Your task to perform on an android device: Show me popular games on the Play Store Image 0: 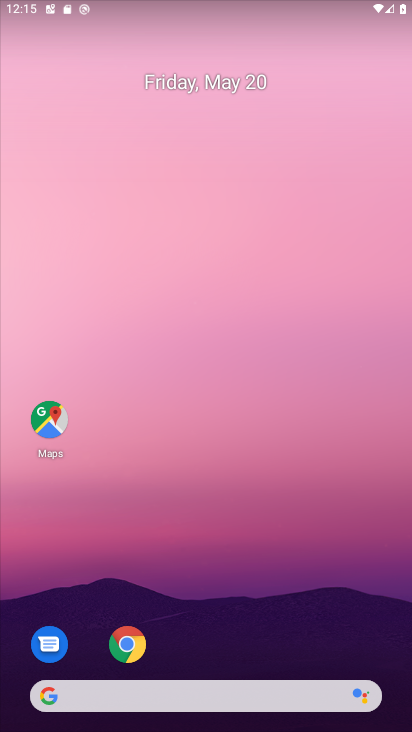
Step 0: drag from (184, 647) to (186, 243)
Your task to perform on an android device: Show me popular games on the Play Store Image 1: 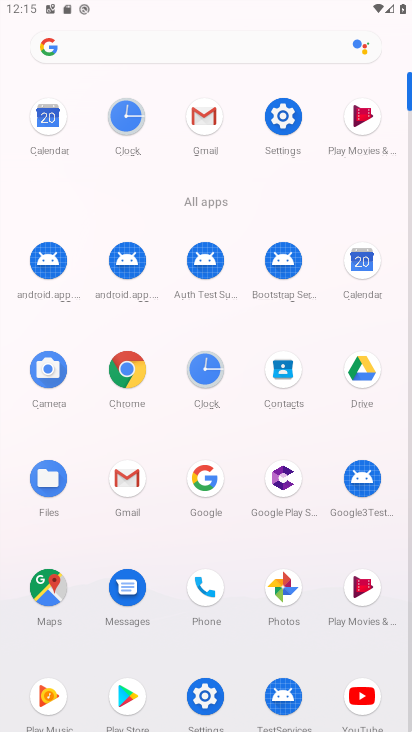
Step 1: click (129, 700)
Your task to perform on an android device: Show me popular games on the Play Store Image 2: 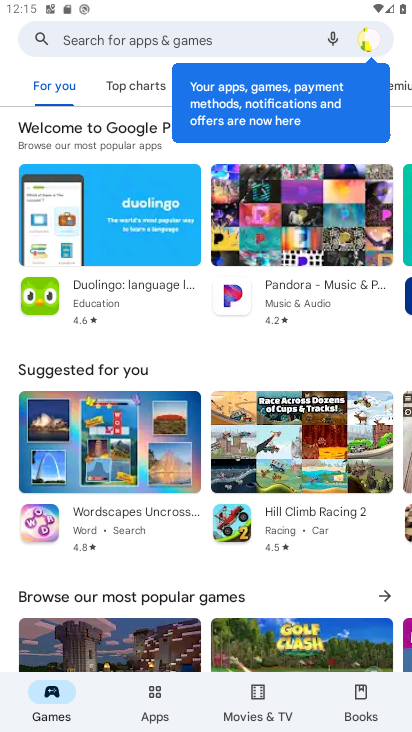
Step 2: click (191, 33)
Your task to perform on an android device: Show me popular games on the Play Store Image 3: 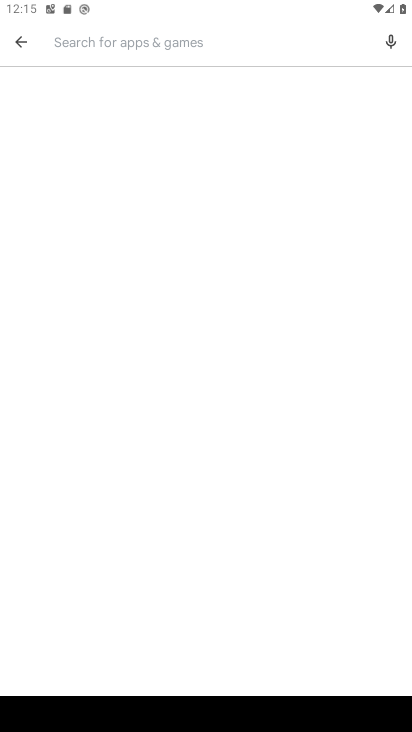
Step 3: type "popular games"
Your task to perform on an android device: Show me popular games on the Play Store Image 4: 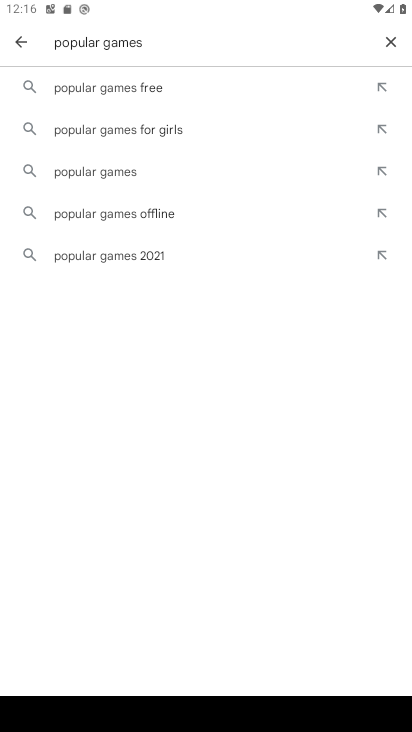
Step 4: click (99, 172)
Your task to perform on an android device: Show me popular games on the Play Store Image 5: 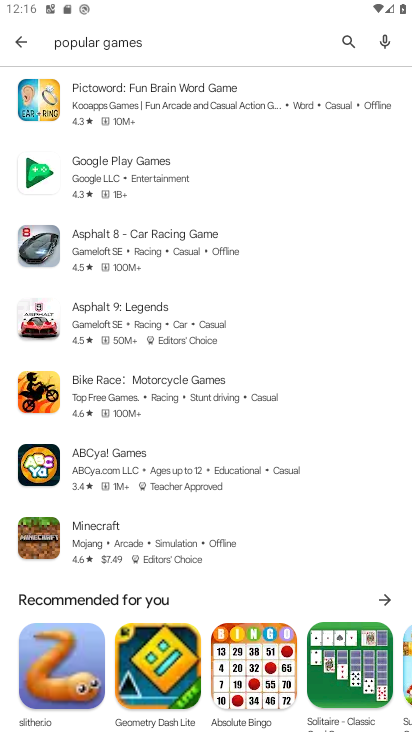
Step 5: task complete